Your task to perform on an android device: open a bookmark in the chrome app Image 0: 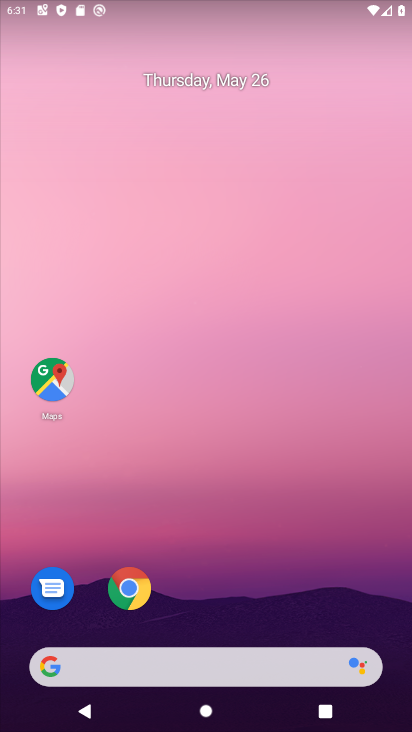
Step 0: drag from (341, 601) to (331, 12)
Your task to perform on an android device: open a bookmark in the chrome app Image 1: 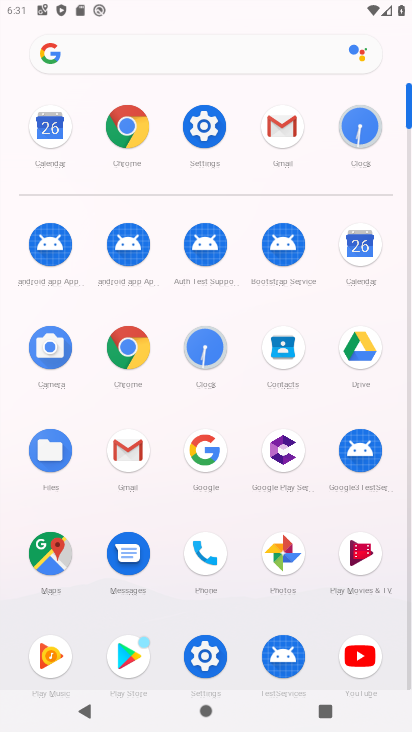
Step 1: click (123, 140)
Your task to perform on an android device: open a bookmark in the chrome app Image 2: 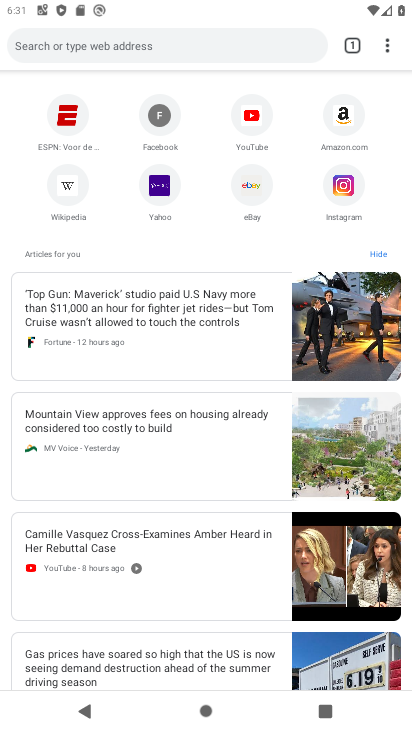
Step 2: click (375, 46)
Your task to perform on an android device: open a bookmark in the chrome app Image 3: 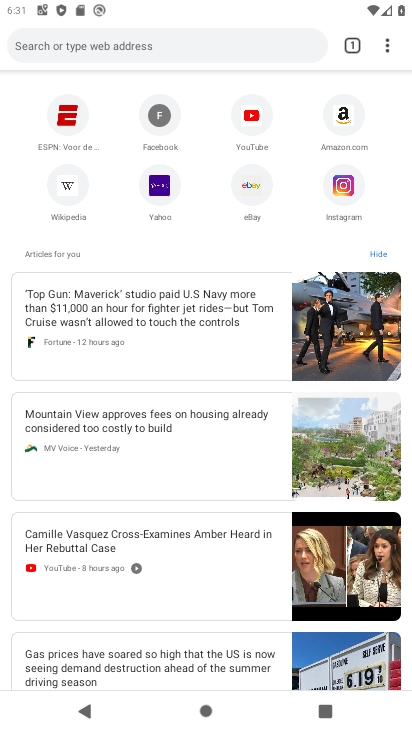
Step 3: click (389, 39)
Your task to perform on an android device: open a bookmark in the chrome app Image 4: 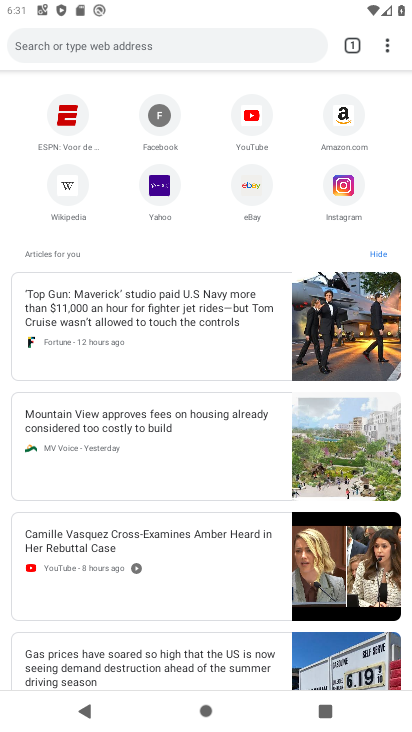
Step 4: click (389, 39)
Your task to perform on an android device: open a bookmark in the chrome app Image 5: 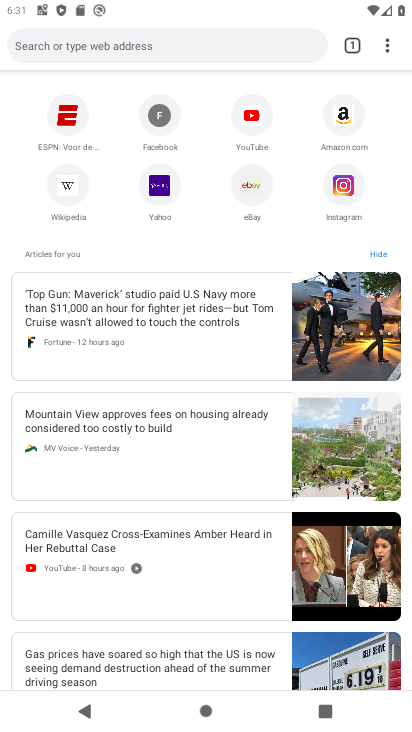
Step 5: click (382, 35)
Your task to perform on an android device: open a bookmark in the chrome app Image 6: 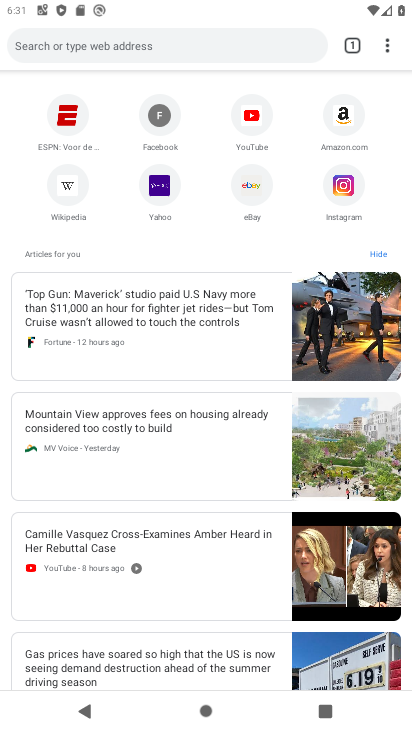
Step 6: click (395, 44)
Your task to perform on an android device: open a bookmark in the chrome app Image 7: 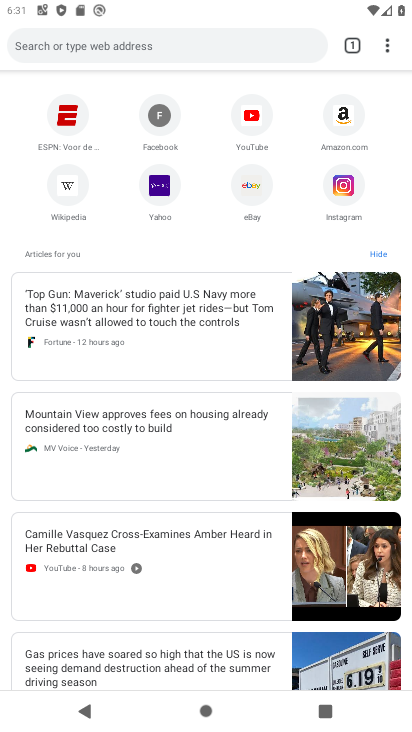
Step 7: click (386, 40)
Your task to perform on an android device: open a bookmark in the chrome app Image 8: 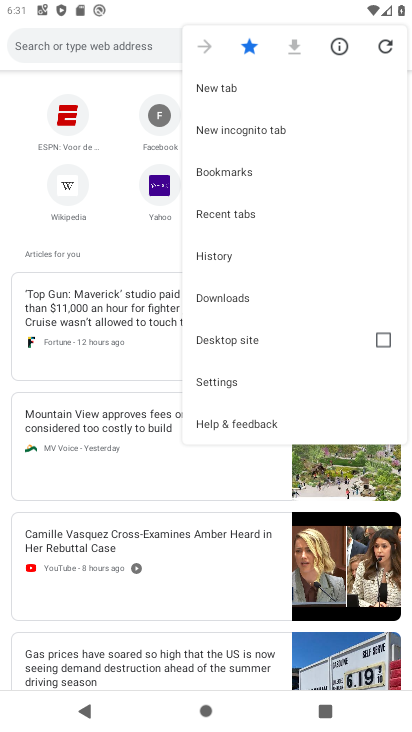
Step 8: click (246, 179)
Your task to perform on an android device: open a bookmark in the chrome app Image 9: 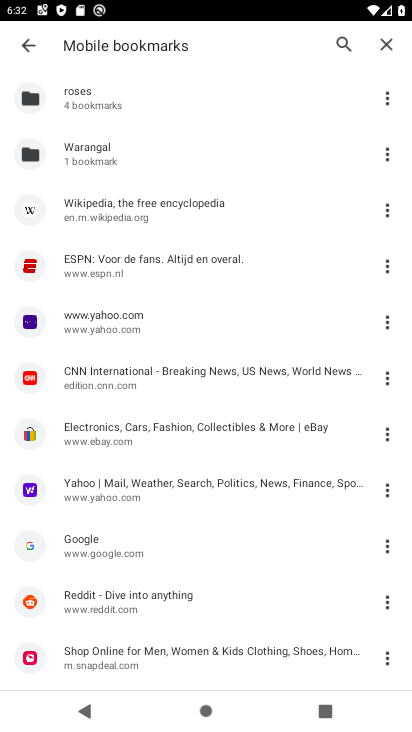
Step 9: task complete